Your task to perform on an android device: stop showing notifications on the lock screen Image 0: 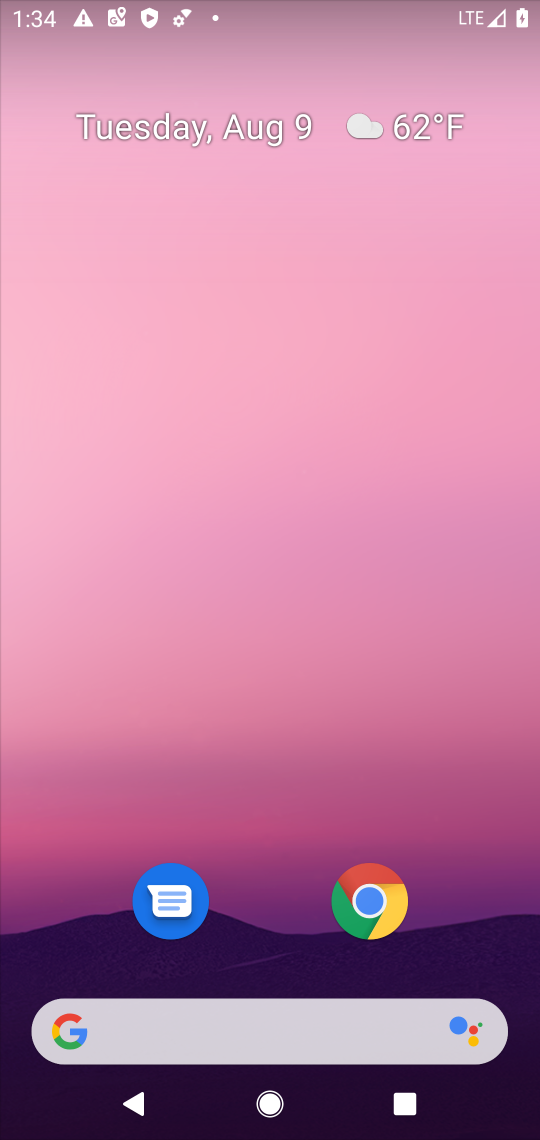
Step 0: drag from (521, 990) to (468, 191)
Your task to perform on an android device: stop showing notifications on the lock screen Image 1: 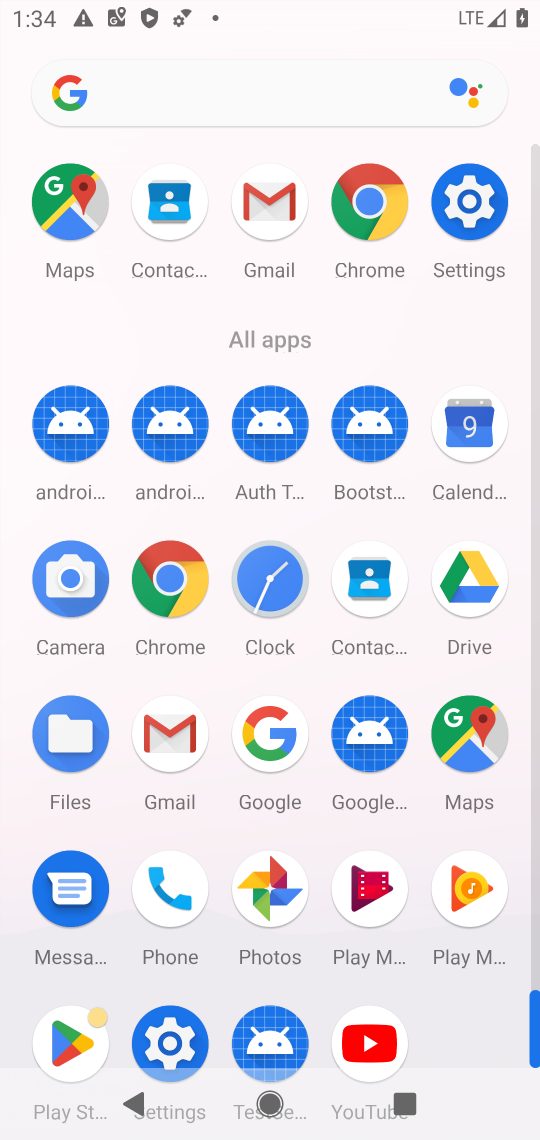
Step 1: click (171, 1041)
Your task to perform on an android device: stop showing notifications on the lock screen Image 2: 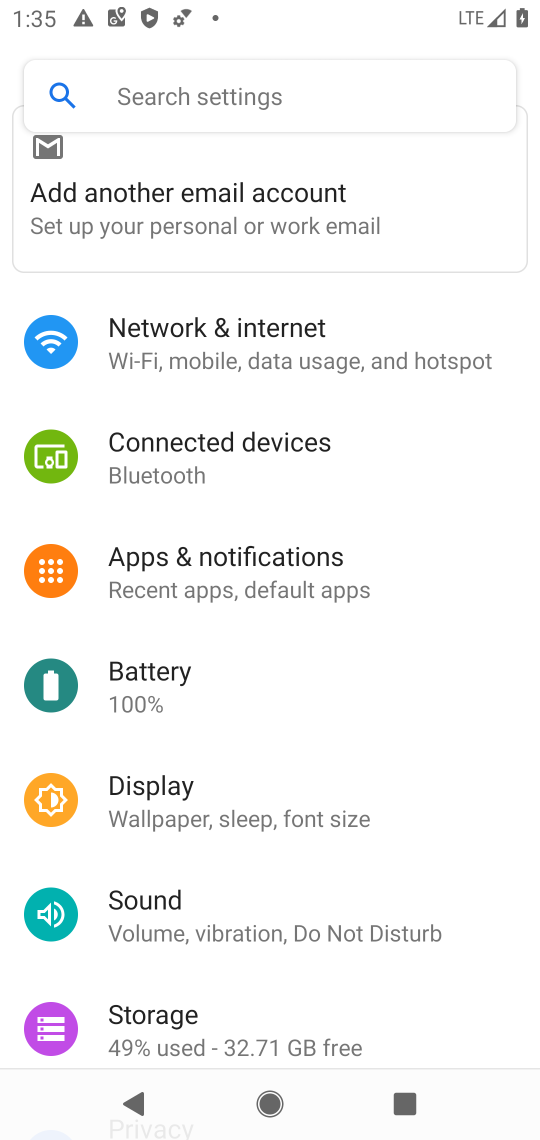
Step 2: click (166, 563)
Your task to perform on an android device: stop showing notifications on the lock screen Image 3: 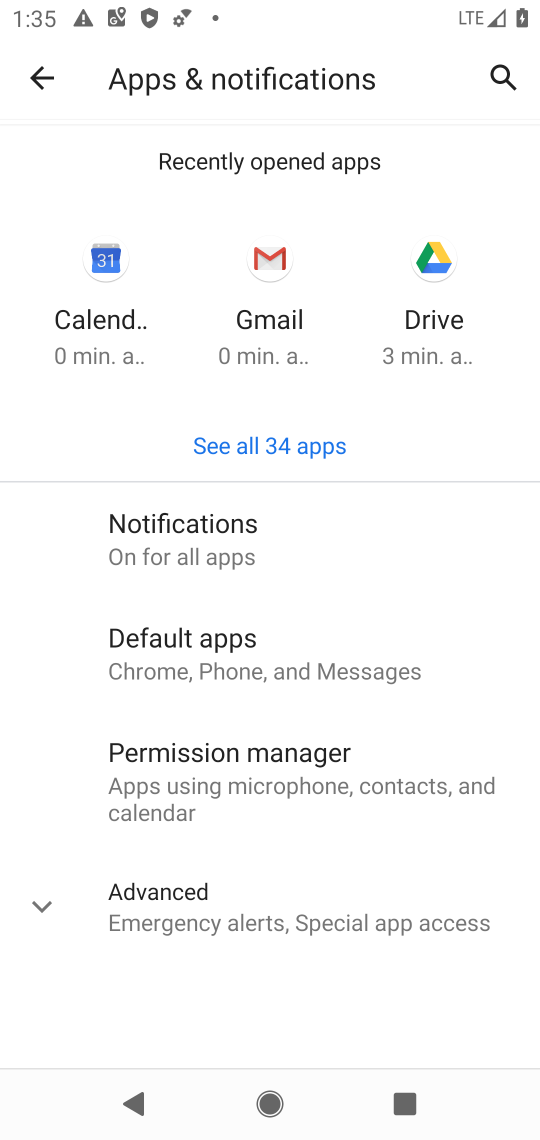
Step 3: click (165, 545)
Your task to perform on an android device: stop showing notifications on the lock screen Image 4: 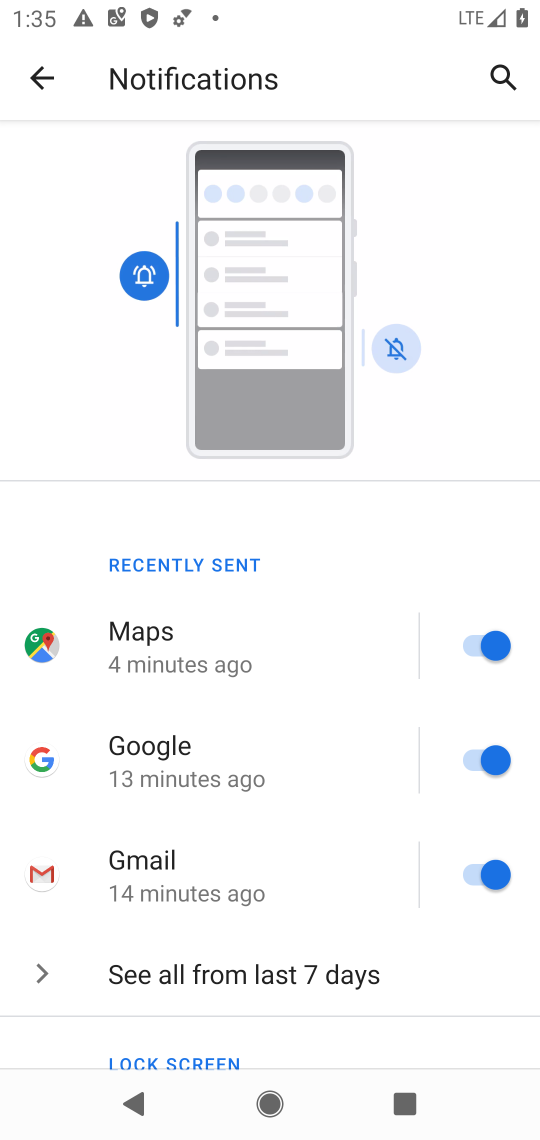
Step 4: drag from (399, 949) to (377, 199)
Your task to perform on an android device: stop showing notifications on the lock screen Image 5: 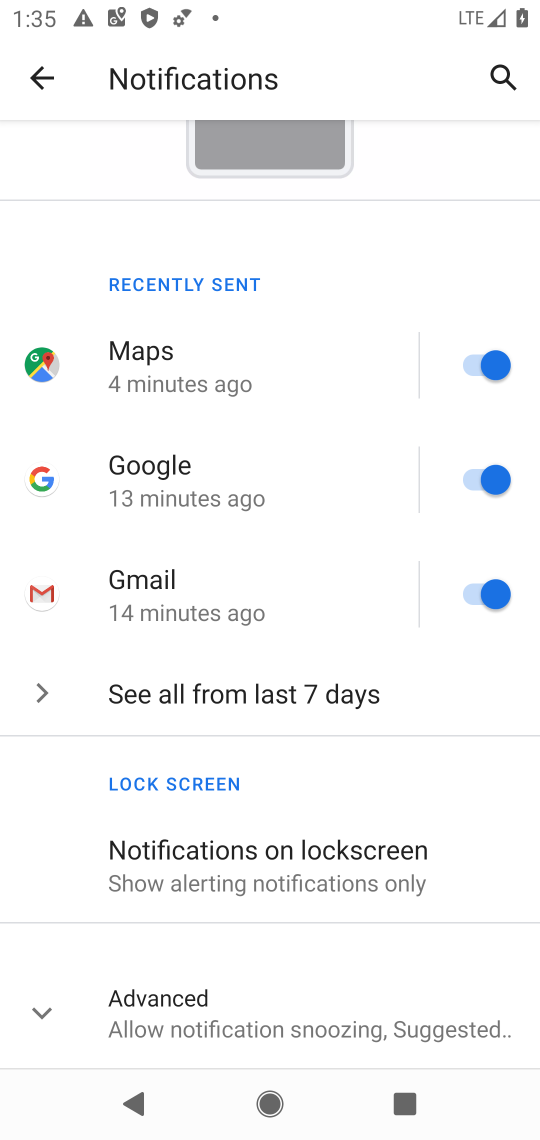
Step 5: click (234, 850)
Your task to perform on an android device: stop showing notifications on the lock screen Image 6: 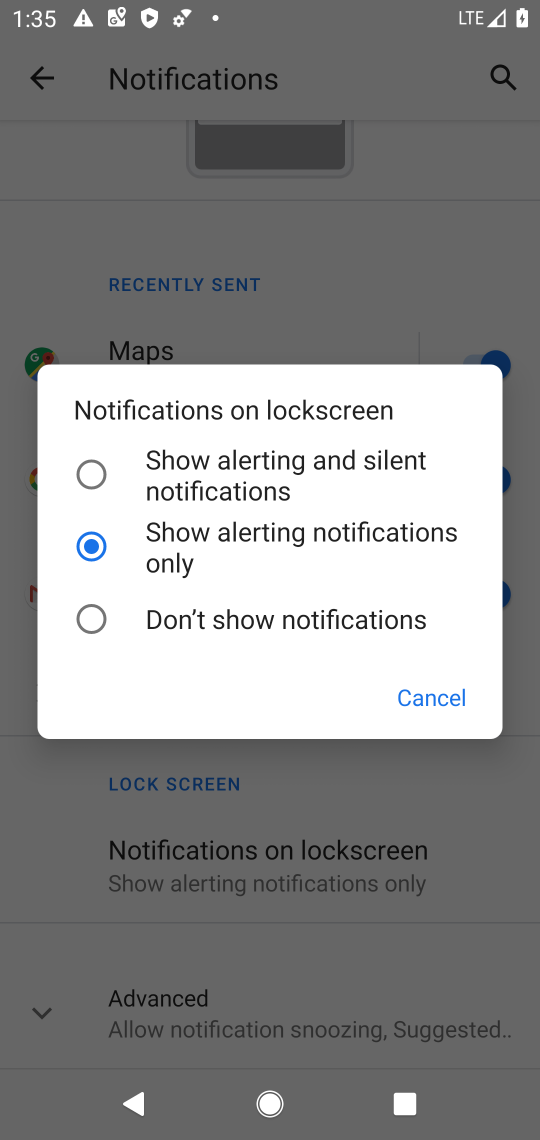
Step 6: click (91, 622)
Your task to perform on an android device: stop showing notifications on the lock screen Image 7: 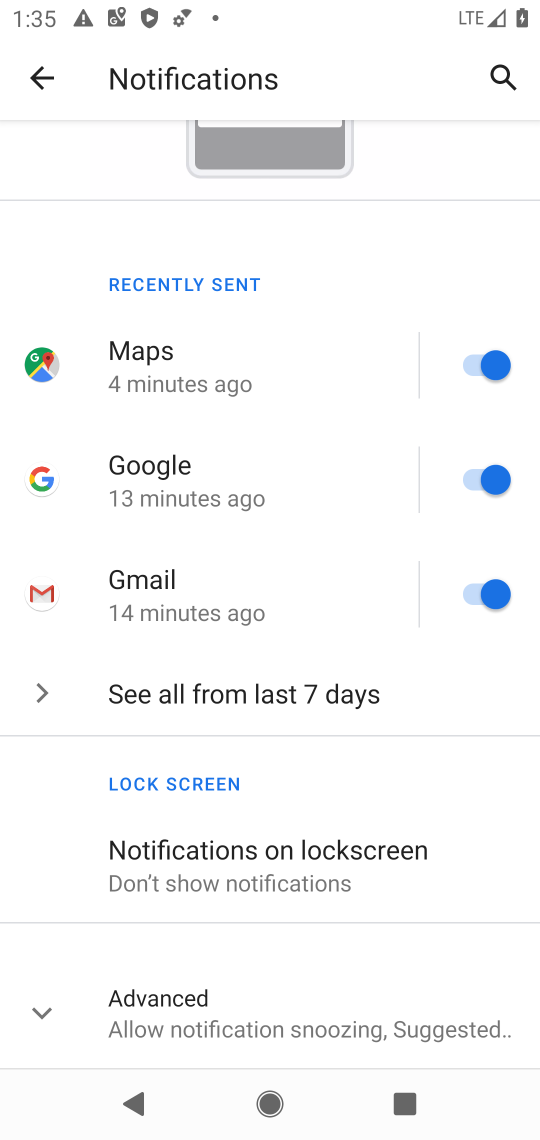
Step 7: task complete